Your task to perform on an android device: See recent photos Image 0: 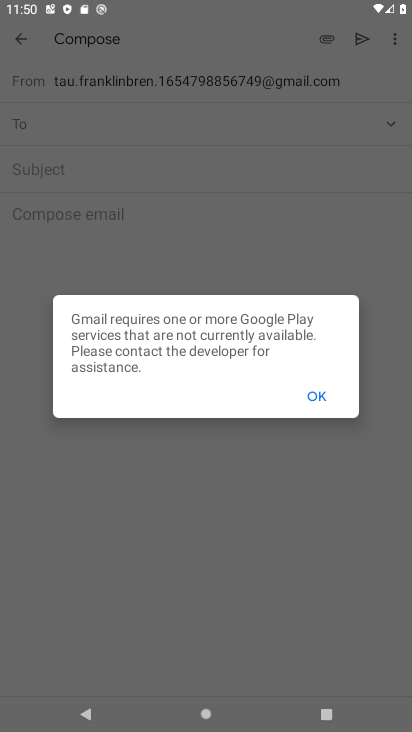
Step 0: press home button
Your task to perform on an android device: See recent photos Image 1: 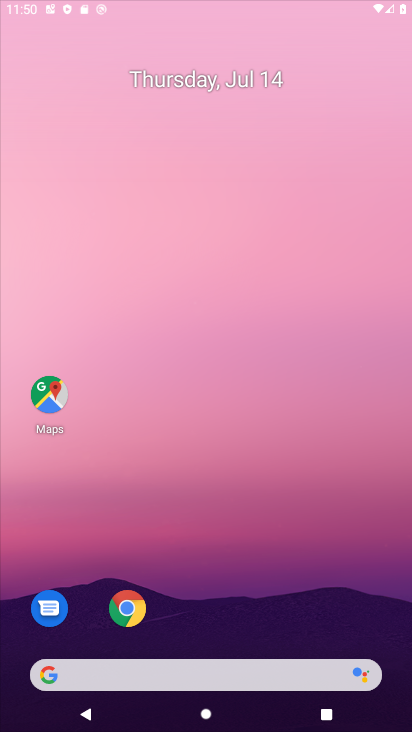
Step 1: drag from (236, 657) to (311, 3)
Your task to perform on an android device: See recent photos Image 2: 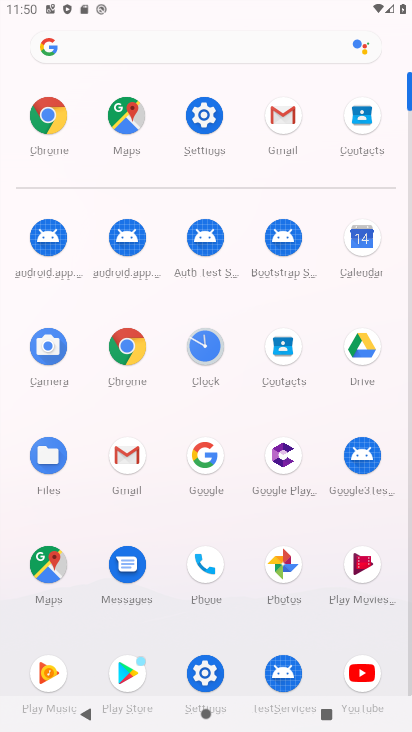
Step 2: click (279, 559)
Your task to perform on an android device: See recent photos Image 3: 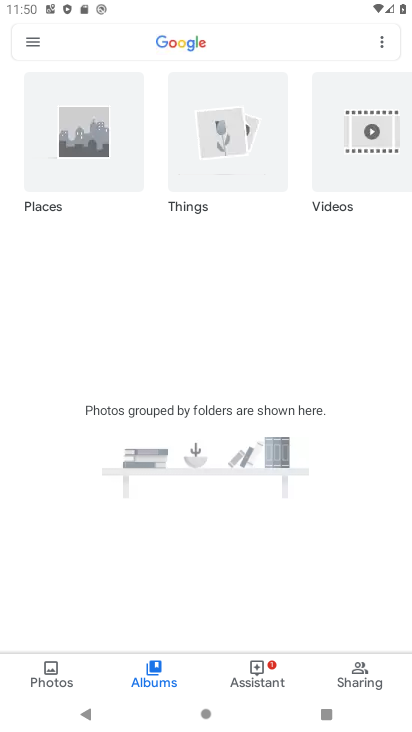
Step 3: click (54, 671)
Your task to perform on an android device: See recent photos Image 4: 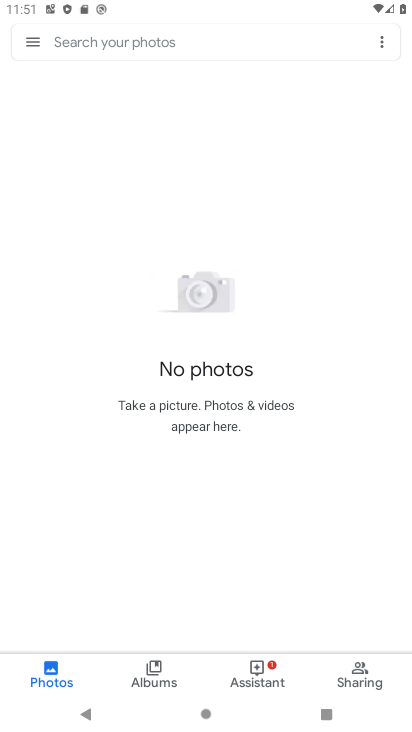
Step 4: task complete